Your task to perform on an android device: Turn off the flashlight Image 0: 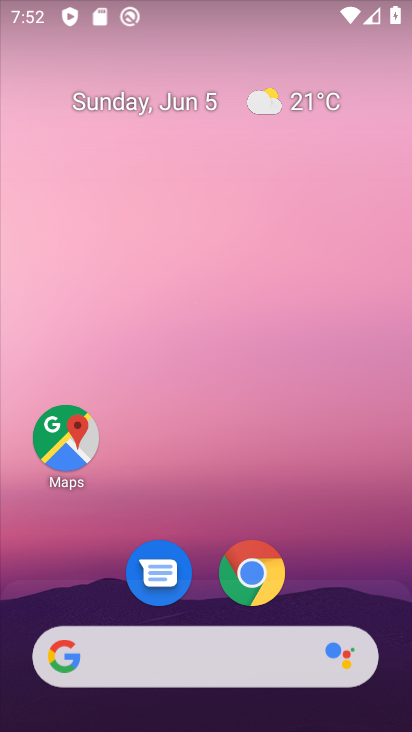
Step 0: drag from (189, 619) to (197, 15)
Your task to perform on an android device: Turn off the flashlight Image 1: 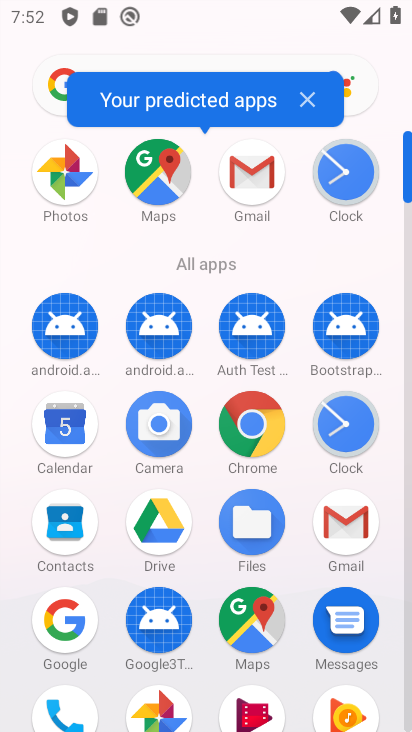
Step 1: drag from (209, 573) to (157, 112)
Your task to perform on an android device: Turn off the flashlight Image 2: 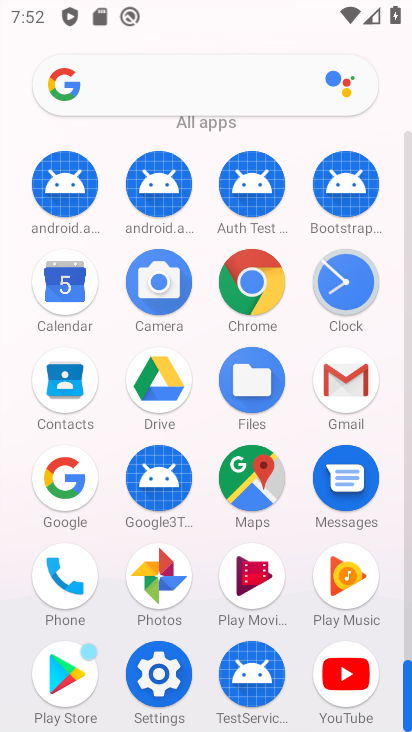
Step 2: click (169, 681)
Your task to perform on an android device: Turn off the flashlight Image 3: 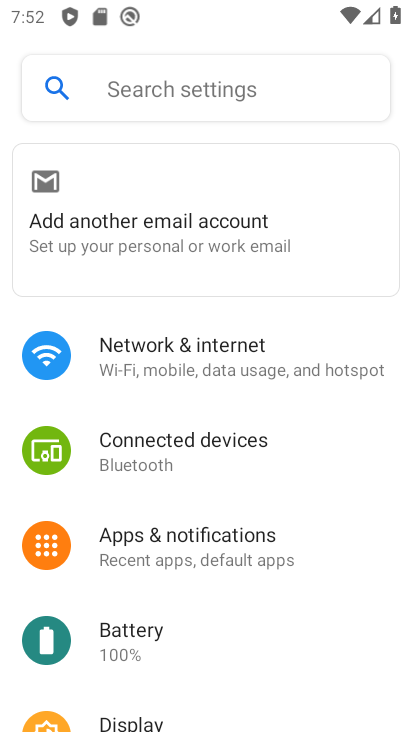
Step 3: task complete